Your task to perform on an android device: check android version Image 0: 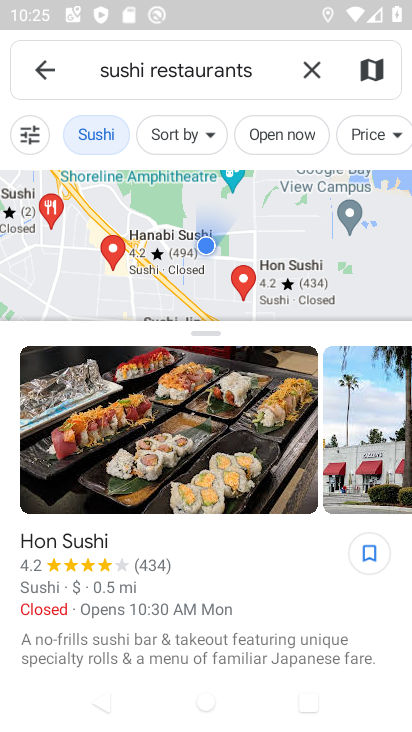
Step 0: press home button
Your task to perform on an android device: check android version Image 1: 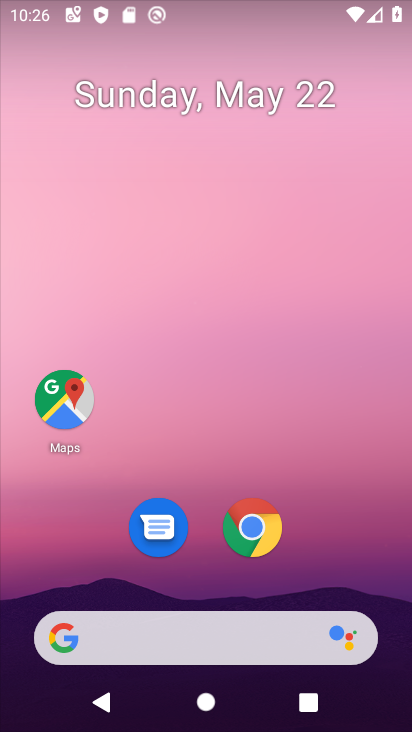
Step 1: drag from (337, 569) to (315, 5)
Your task to perform on an android device: check android version Image 2: 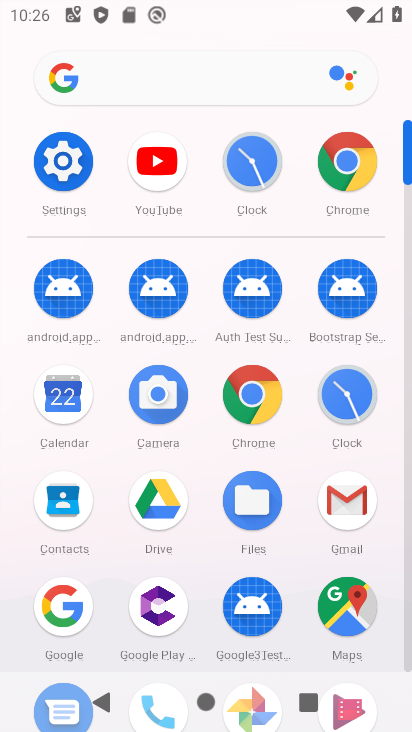
Step 2: click (85, 191)
Your task to perform on an android device: check android version Image 3: 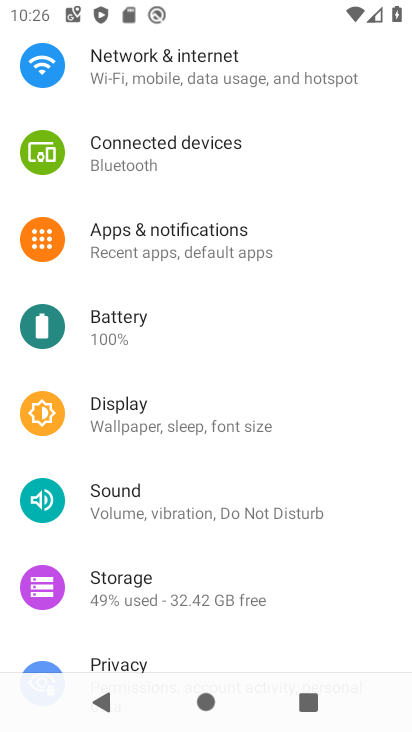
Step 3: drag from (154, 507) to (234, 122)
Your task to perform on an android device: check android version Image 4: 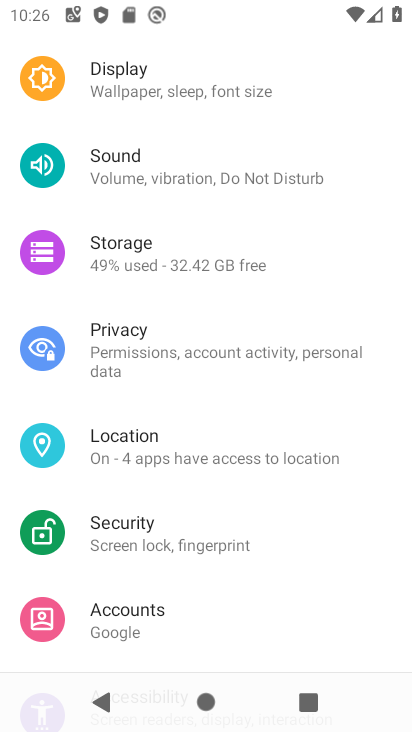
Step 4: drag from (259, 616) to (314, 120)
Your task to perform on an android device: check android version Image 5: 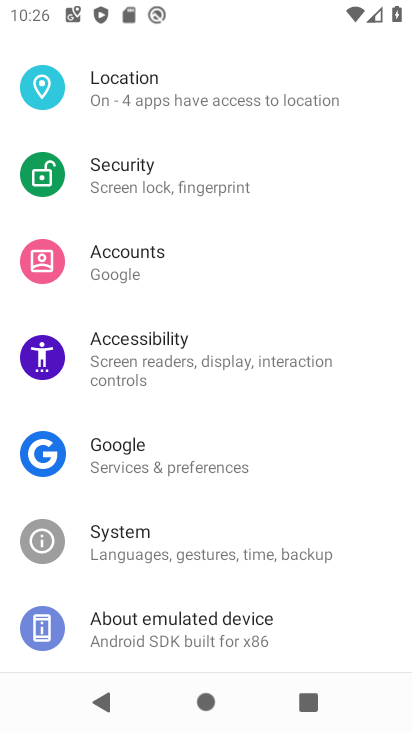
Step 5: click (194, 624)
Your task to perform on an android device: check android version Image 6: 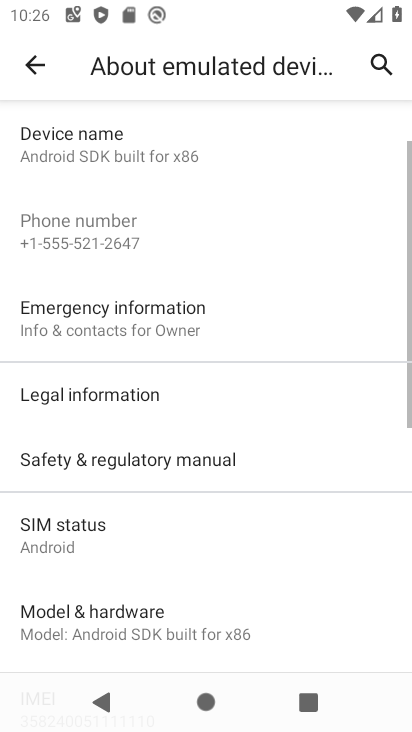
Step 6: drag from (133, 559) to (165, 364)
Your task to perform on an android device: check android version Image 7: 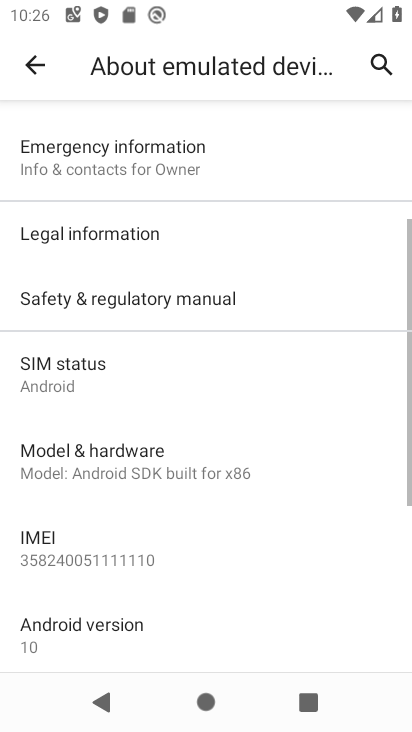
Step 7: click (109, 632)
Your task to perform on an android device: check android version Image 8: 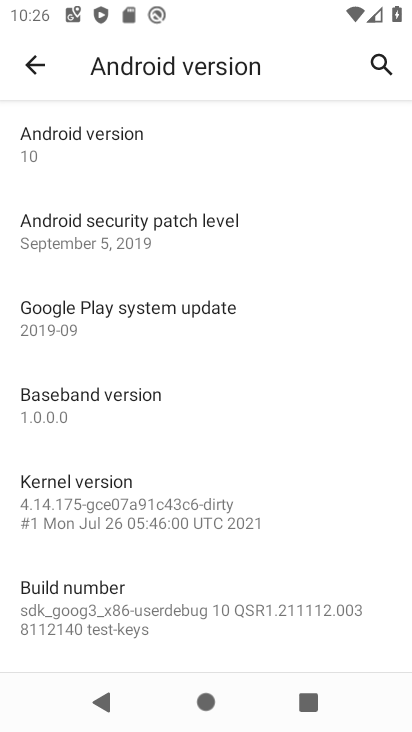
Step 8: task complete